Your task to perform on an android device: Open notification settings Image 0: 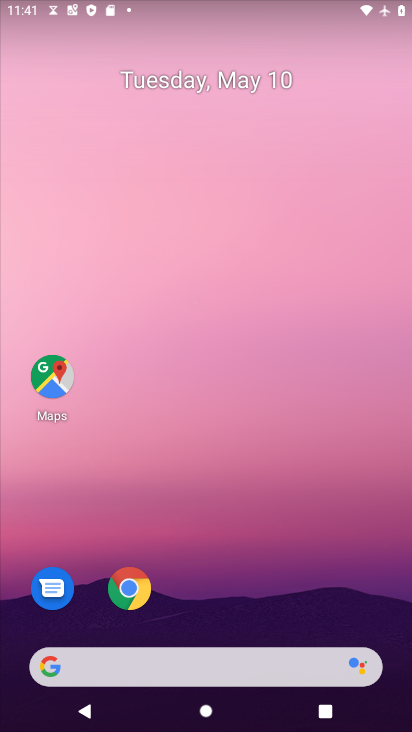
Step 0: drag from (290, 706) to (173, 93)
Your task to perform on an android device: Open notification settings Image 1: 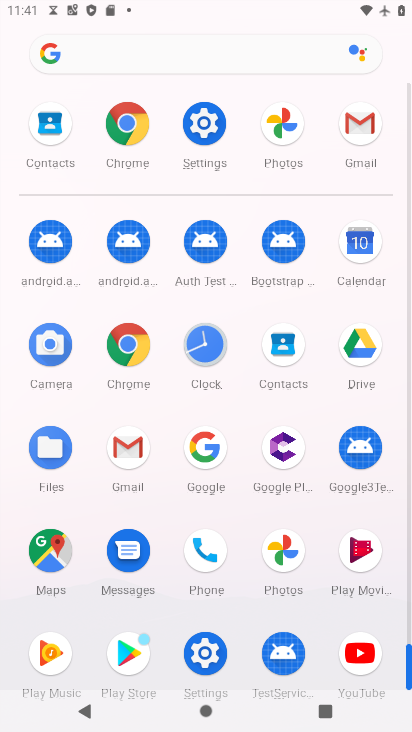
Step 1: click (202, 130)
Your task to perform on an android device: Open notification settings Image 2: 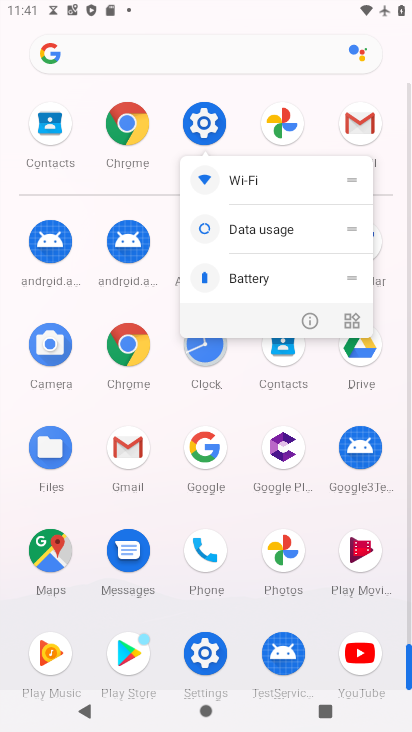
Step 2: click (202, 130)
Your task to perform on an android device: Open notification settings Image 3: 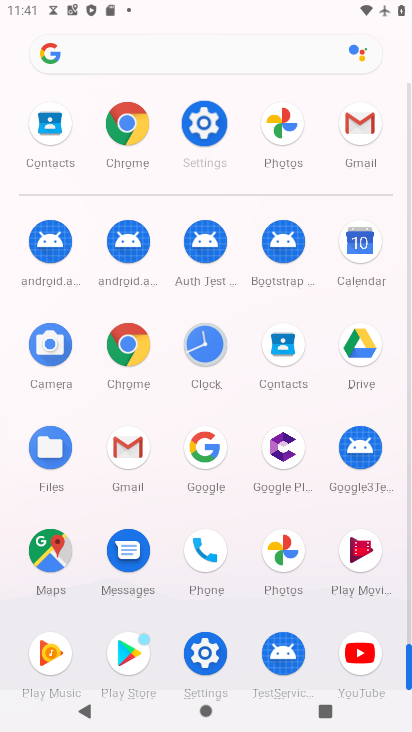
Step 3: click (202, 131)
Your task to perform on an android device: Open notification settings Image 4: 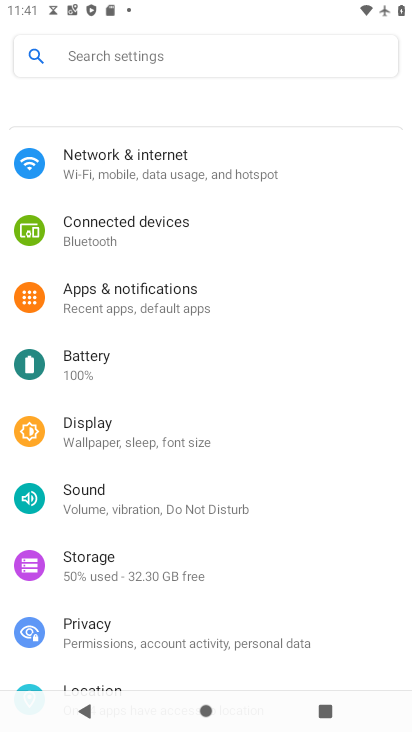
Step 4: click (202, 131)
Your task to perform on an android device: Open notification settings Image 5: 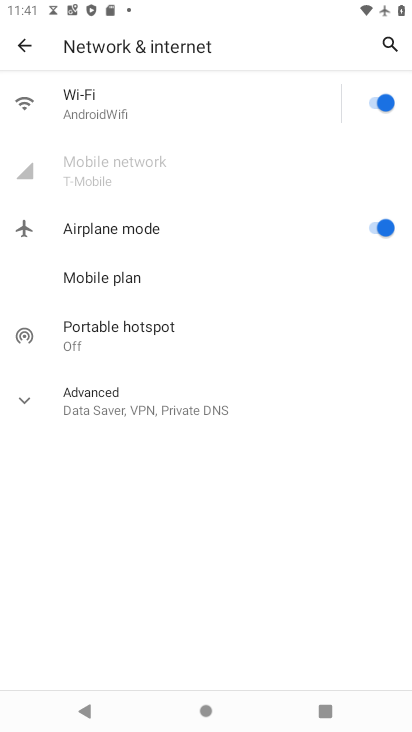
Step 5: click (31, 44)
Your task to perform on an android device: Open notification settings Image 6: 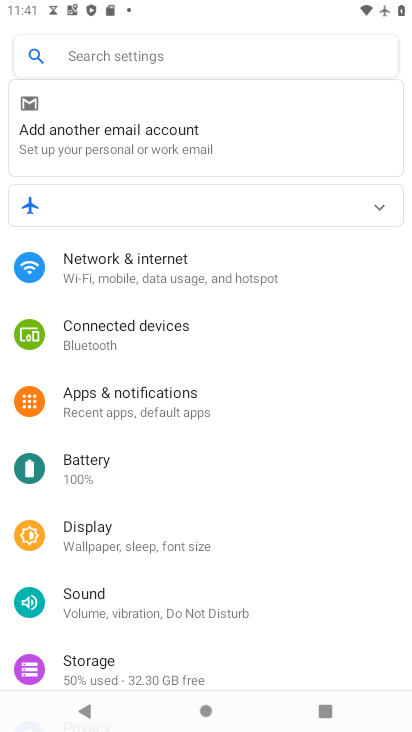
Step 6: click (115, 395)
Your task to perform on an android device: Open notification settings Image 7: 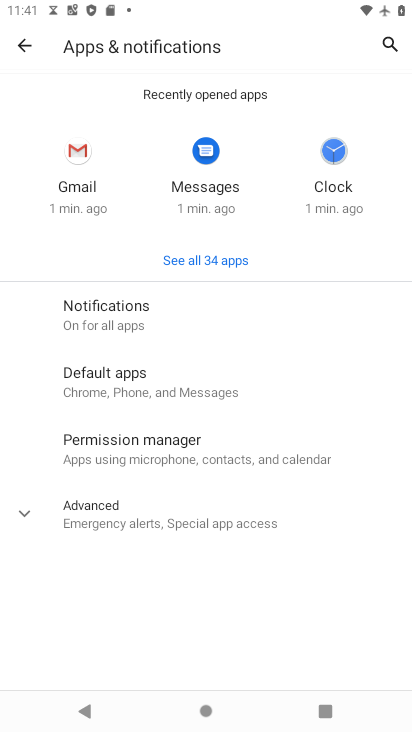
Step 7: click (91, 293)
Your task to perform on an android device: Open notification settings Image 8: 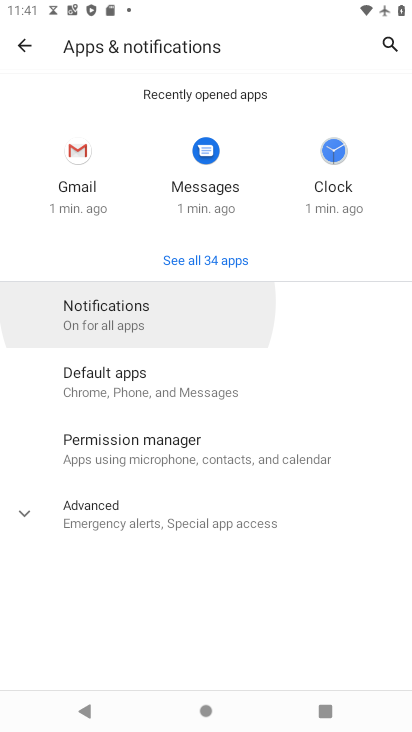
Step 8: click (91, 295)
Your task to perform on an android device: Open notification settings Image 9: 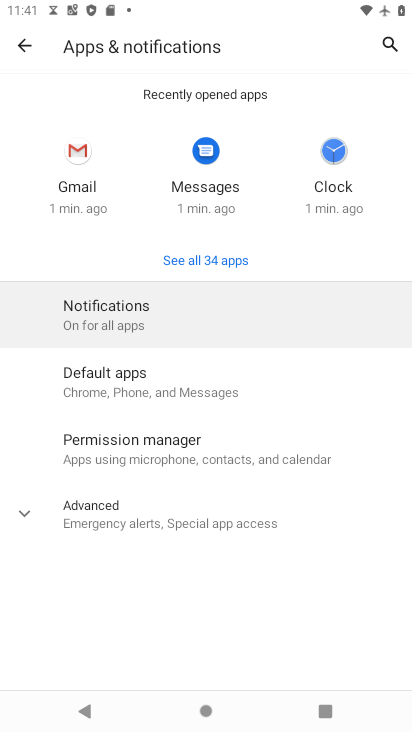
Step 9: click (94, 311)
Your task to perform on an android device: Open notification settings Image 10: 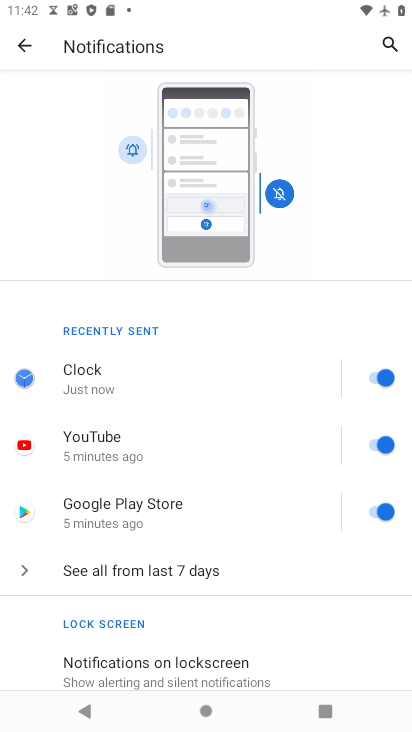
Step 10: click (95, 48)
Your task to perform on an android device: Open notification settings Image 11: 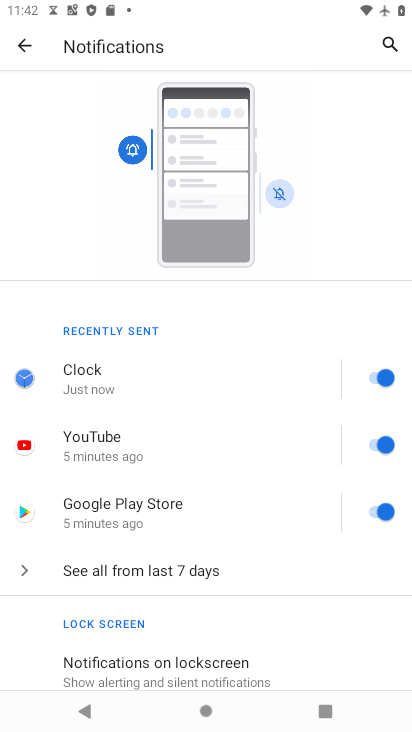
Step 11: drag from (189, 549) to (154, 242)
Your task to perform on an android device: Open notification settings Image 12: 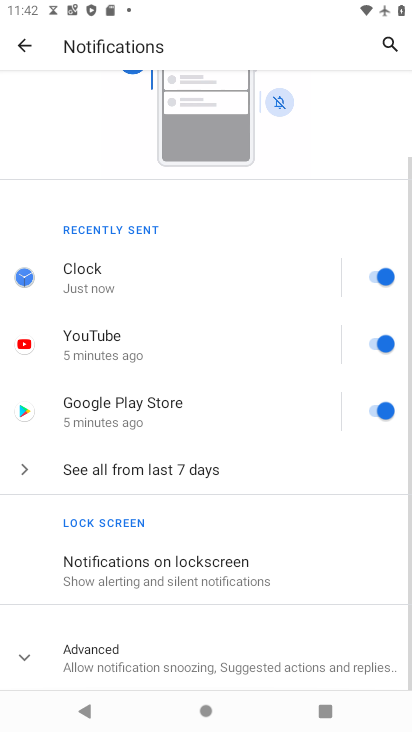
Step 12: drag from (196, 538) to (234, 265)
Your task to perform on an android device: Open notification settings Image 13: 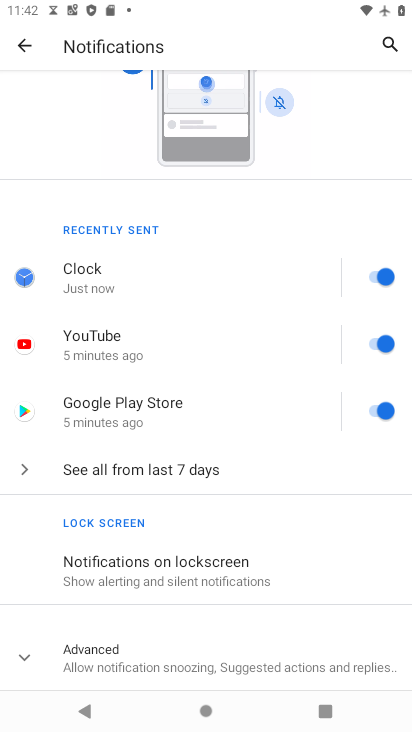
Step 13: click (141, 559)
Your task to perform on an android device: Open notification settings Image 14: 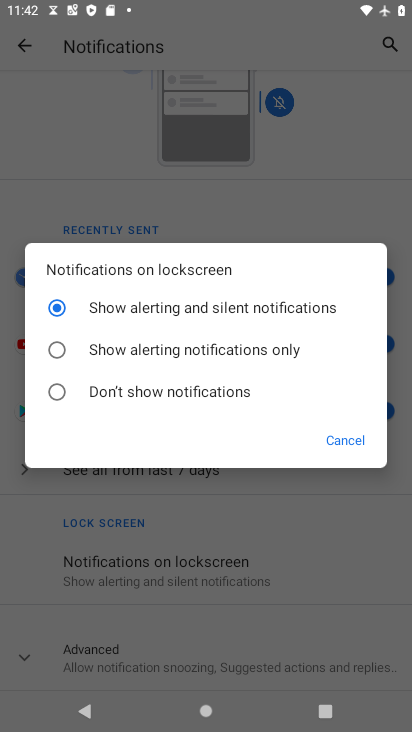
Step 14: task complete